Your task to perform on an android device: Open eBay Image 0: 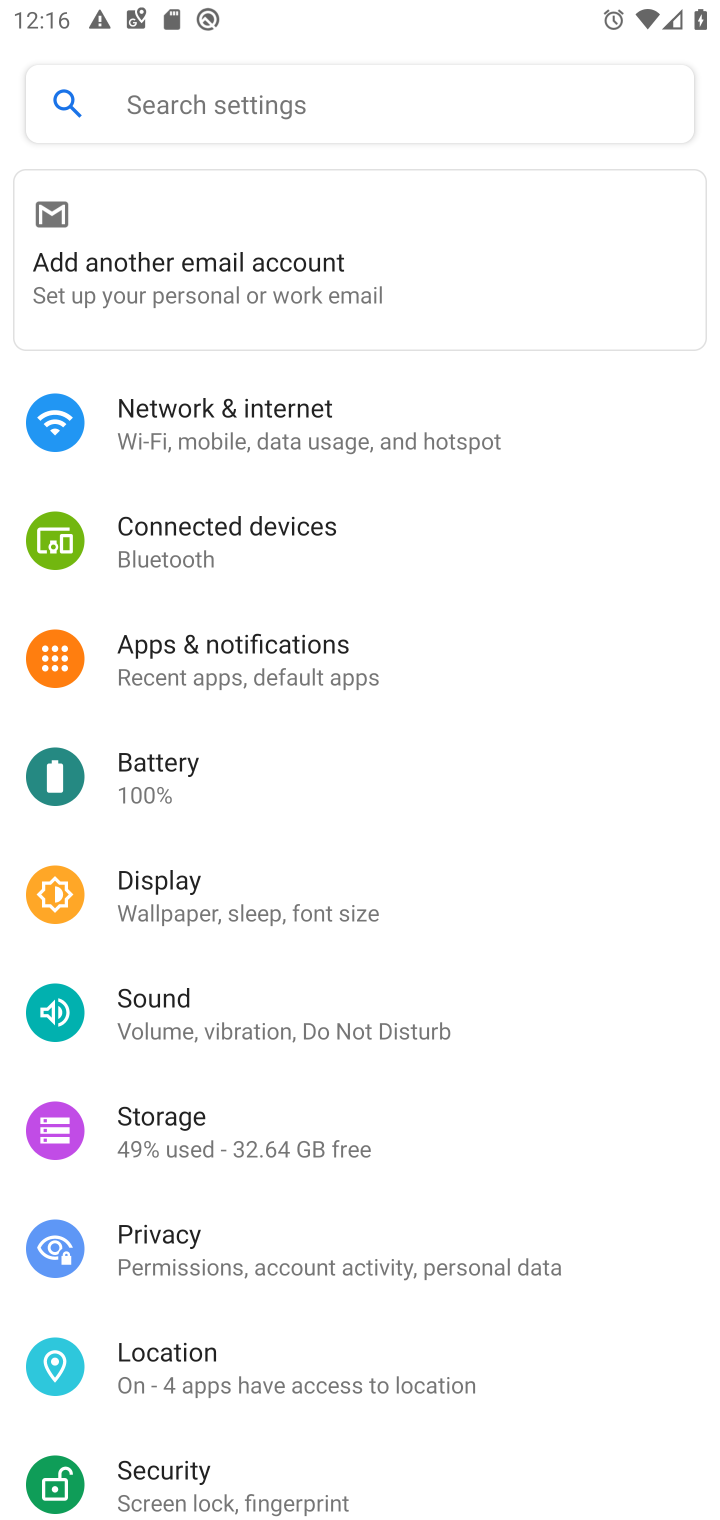
Step 0: press home button
Your task to perform on an android device: Open eBay Image 1: 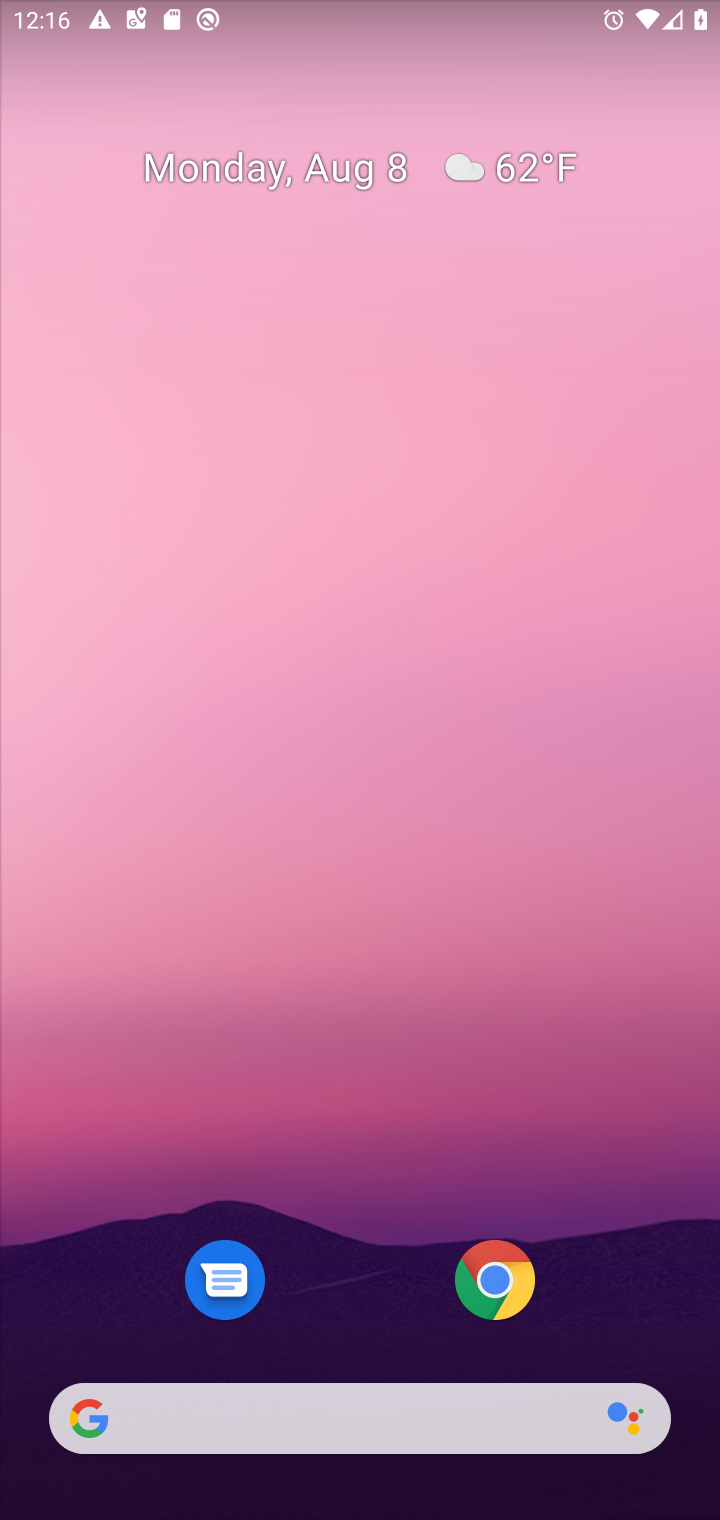
Step 1: click (495, 1268)
Your task to perform on an android device: Open eBay Image 2: 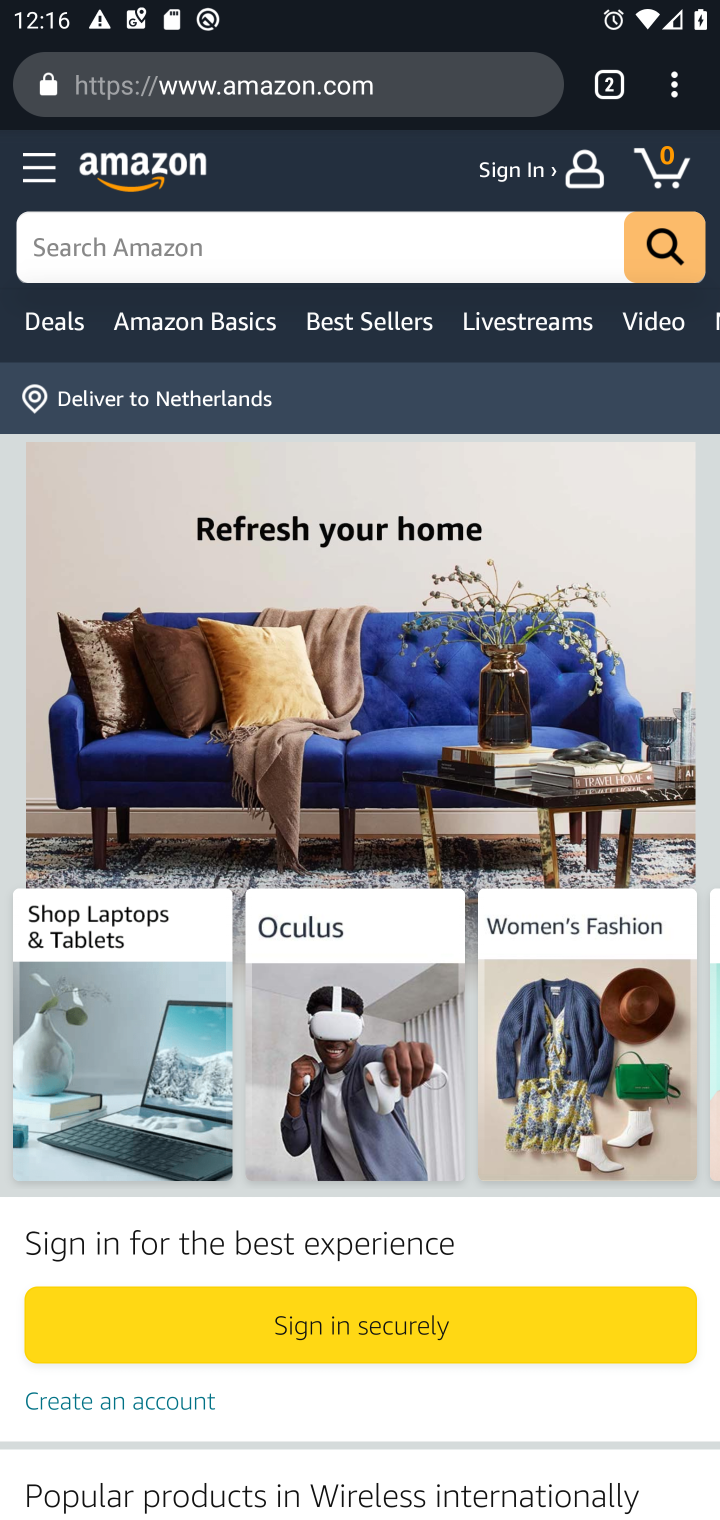
Step 2: drag from (672, 93) to (402, 289)
Your task to perform on an android device: Open eBay Image 3: 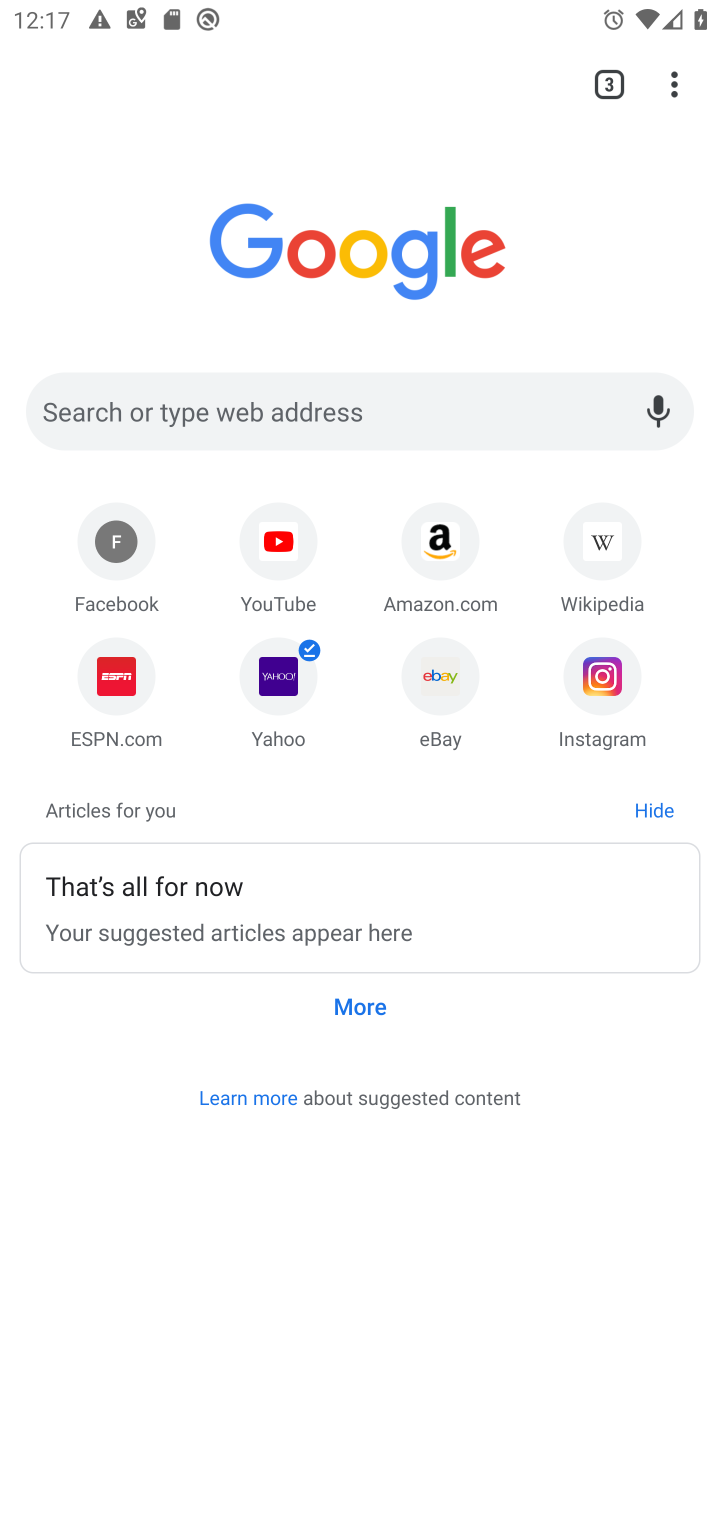
Step 3: click (442, 686)
Your task to perform on an android device: Open eBay Image 4: 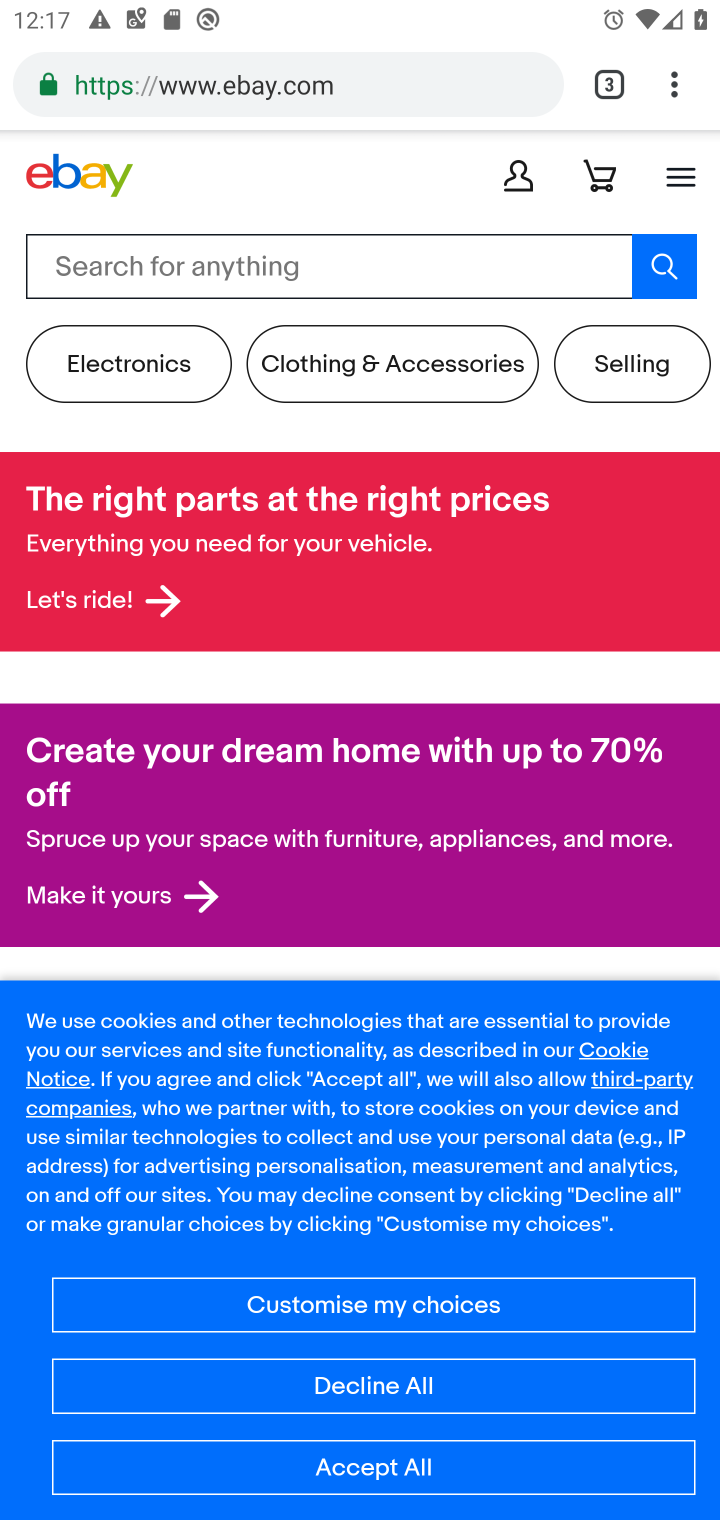
Step 4: task complete